Your task to perform on an android device: turn off location Image 0: 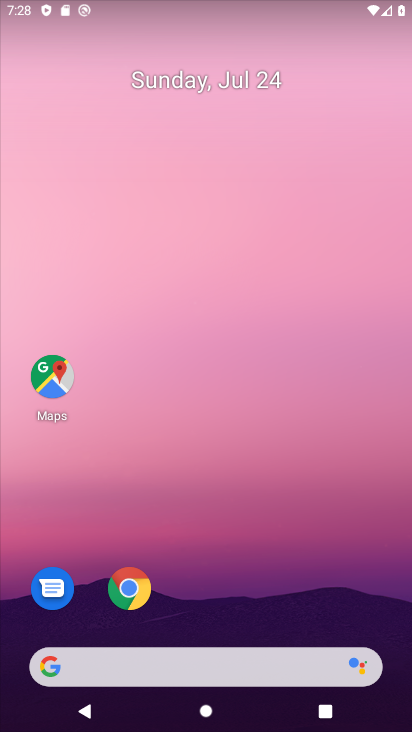
Step 0: drag from (210, 460) to (389, 13)
Your task to perform on an android device: turn off location Image 1: 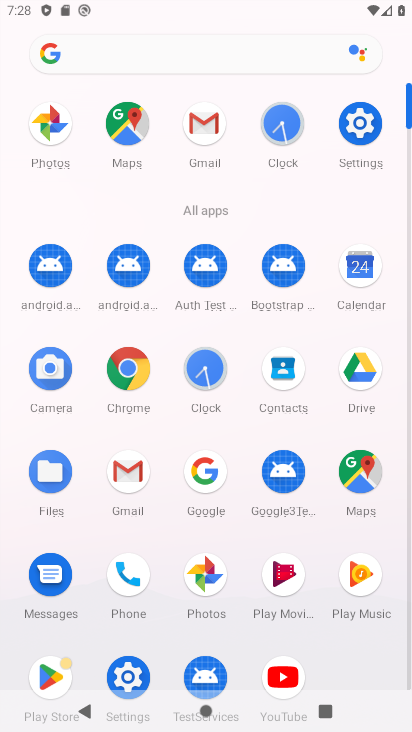
Step 1: click (362, 120)
Your task to perform on an android device: turn off location Image 2: 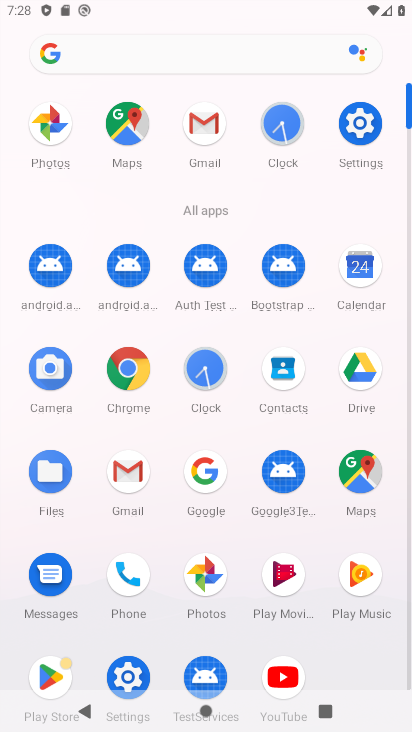
Step 2: click (362, 120)
Your task to perform on an android device: turn off location Image 3: 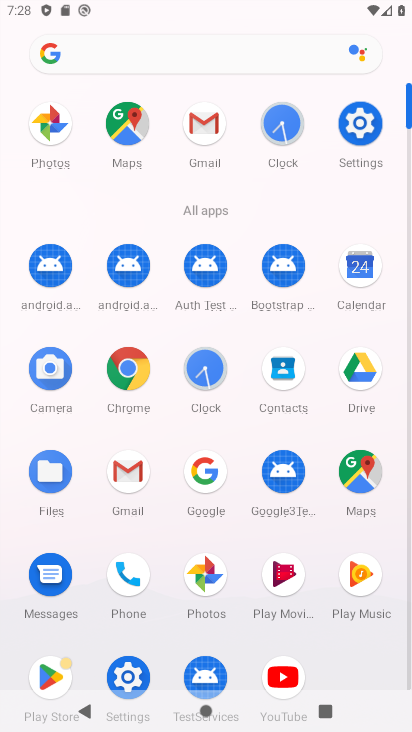
Step 3: click (362, 120)
Your task to perform on an android device: turn off location Image 4: 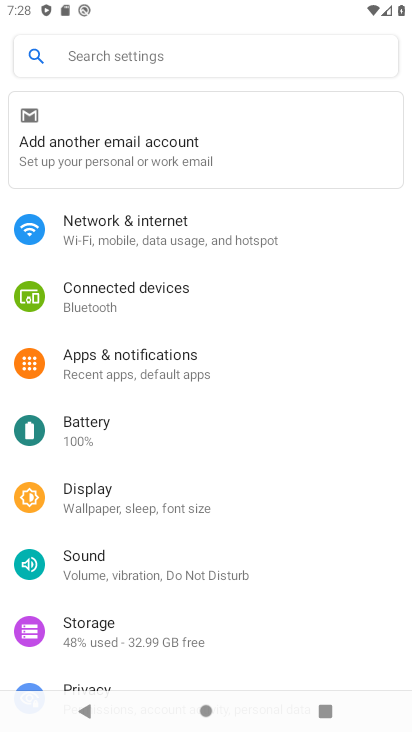
Step 4: drag from (304, 538) to (380, 100)
Your task to perform on an android device: turn off location Image 5: 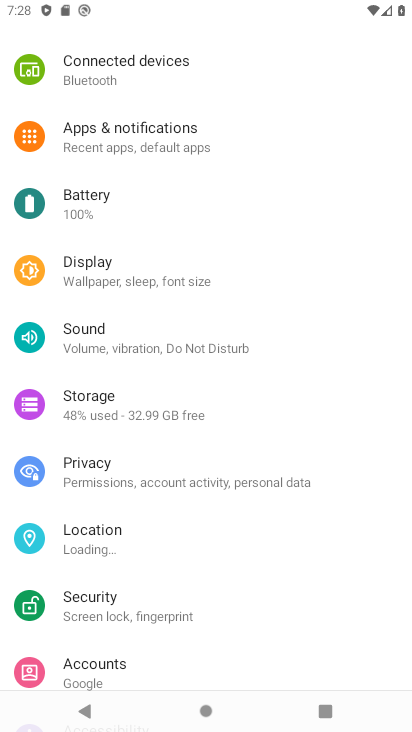
Step 5: click (115, 539)
Your task to perform on an android device: turn off location Image 6: 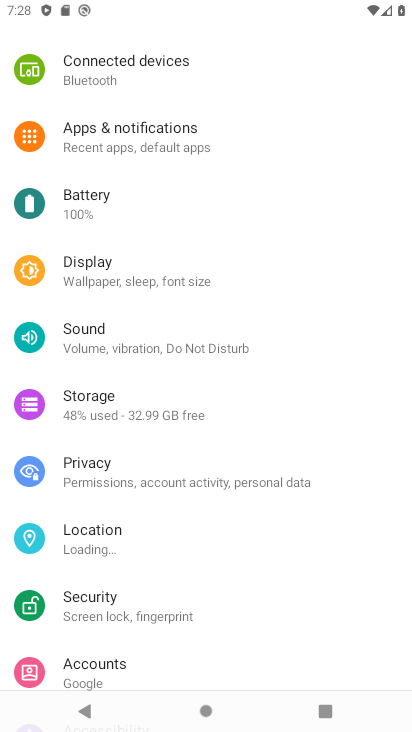
Step 6: click (115, 539)
Your task to perform on an android device: turn off location Image 7: 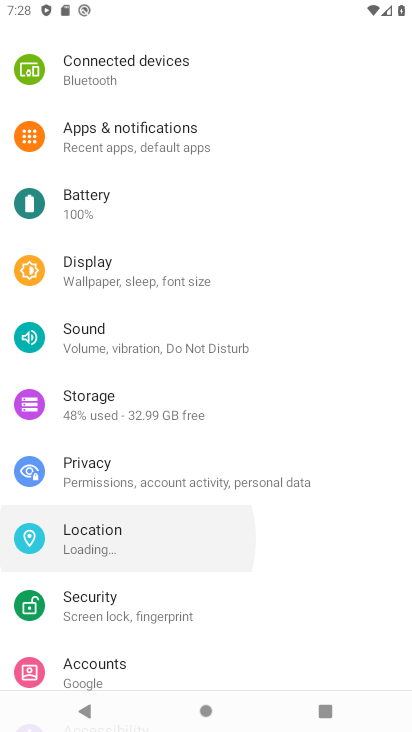
Step 7: click (115, 539)
Your task to perform on an android device: turn off location Image 8: 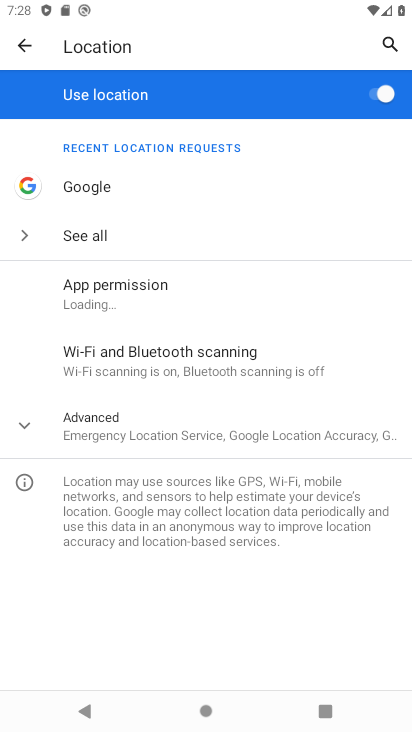
Step 8: click (390, 93)
Your task to perform on an android device: turn off location Image 9: 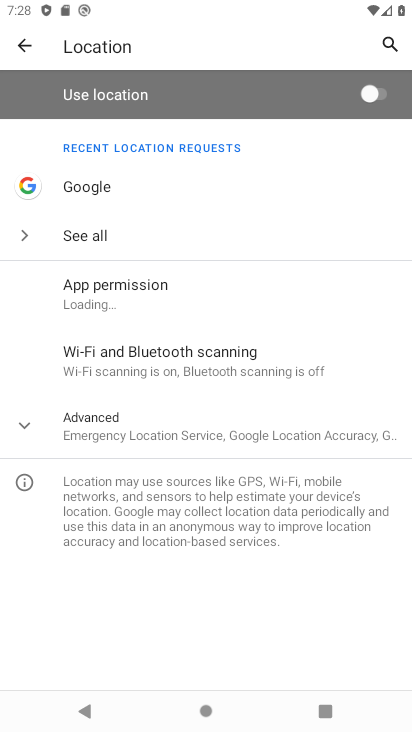
Step 9: task complete